Your task to perform on an android device: open app "Microsoft Outlook" Image 0: 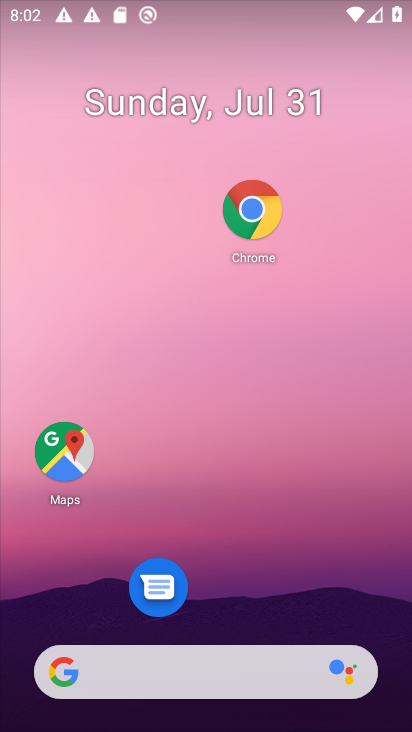
Step 0: drag from (171, 431) to (150, 247)
Your task to perform on an android device: open app "Microsoft Outlook" Image 1: 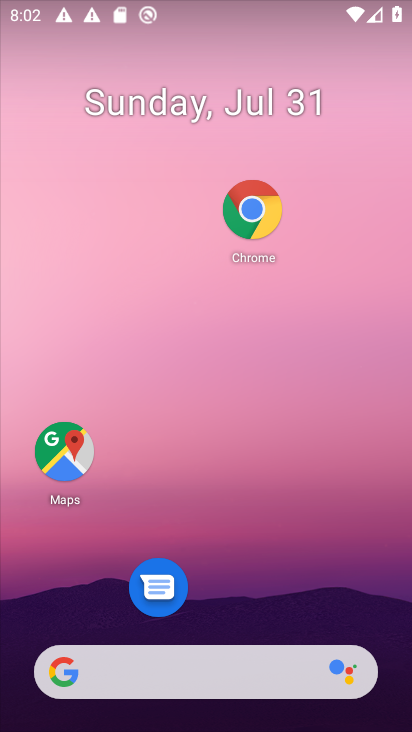
Step 1: drag from (225, 636) to (230, 177)
Your task to perform on an android device: open app "Microsoft Outlook" Image 2: 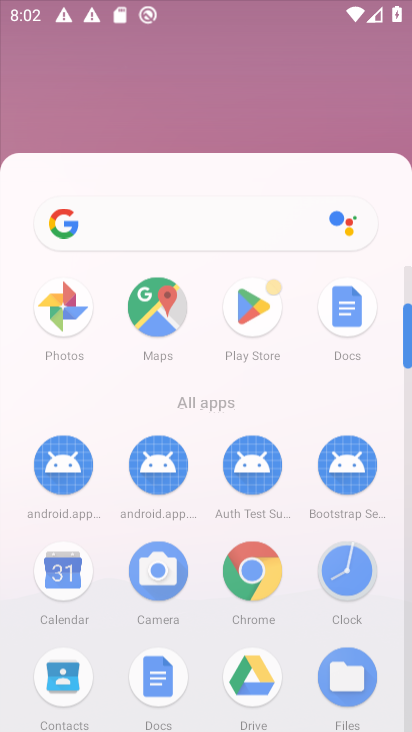
Step 2: drag from (217, 559) to (167, 108)
Your task to perform on an android device: open app "Microsoft Outlook" Image 3: 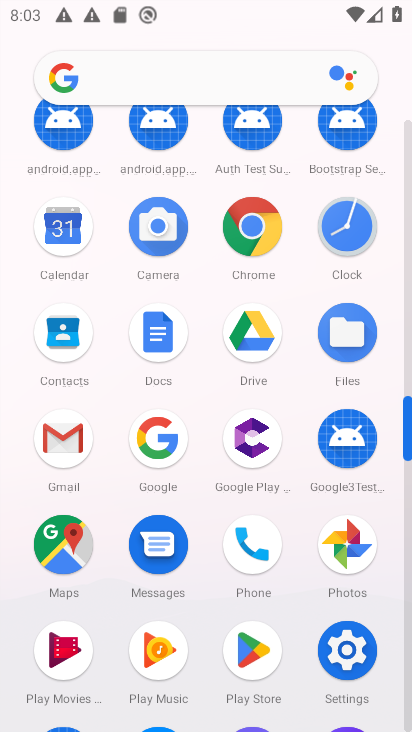
Step 3: drag from (193, 299) to (245, 717)
Your task to perform on an android device: open app "Microsoft Outlook" Image 4: 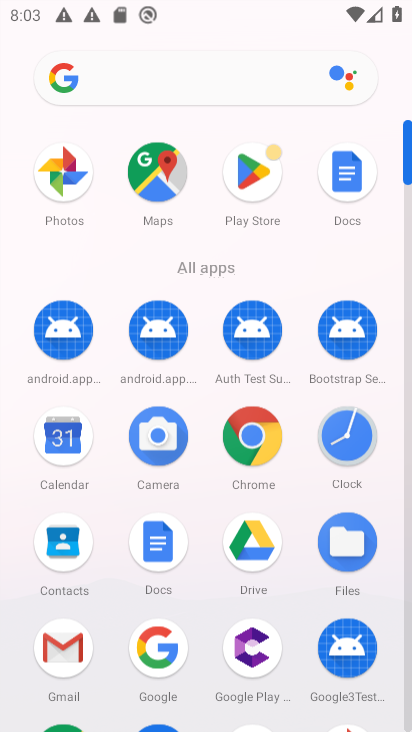
Step 4: drag from (246, 275) to (246, 713)
Your task to perform on an android device: open app "Microsoft Outlook" Image 5: 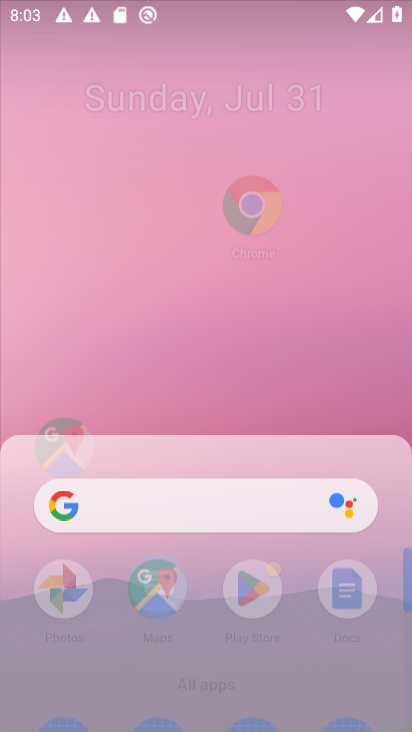
Step 5: drag from (261, 407) to (296, 697)
Your task to perform on an android device: open app "Microsoft Outlook" Image 6: 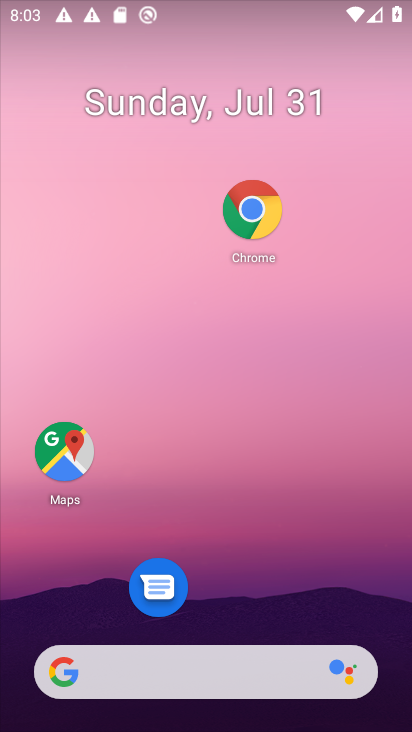
Step 6: drag from (198, 526) to (147, 5)
Your task to perform on an android device: open app "Microsoft Outlook" Image 7: 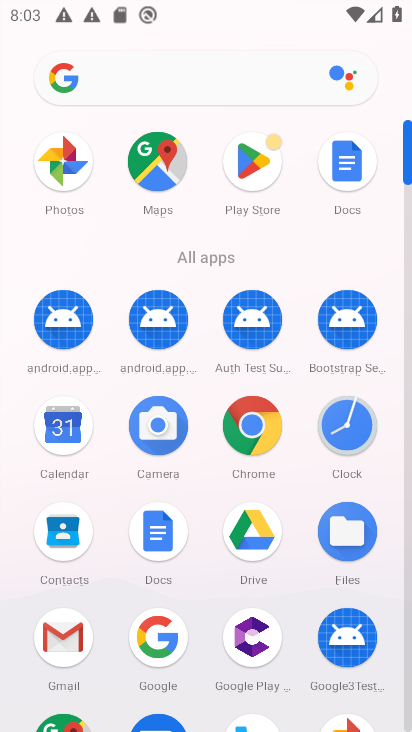
Step 7: click (255, 147)
Your task to perform on an android device: open app "Microsoft Outlook" Image 8: 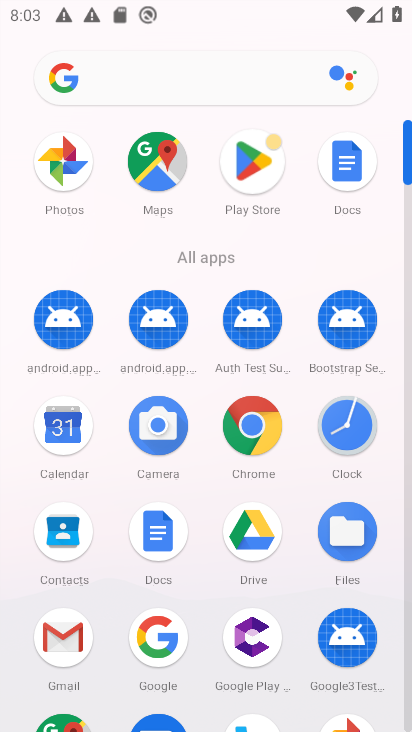
Step 8: click (261, 155)
Your task to perform on an android device: open app "Microsoft Outlook" Image 9: 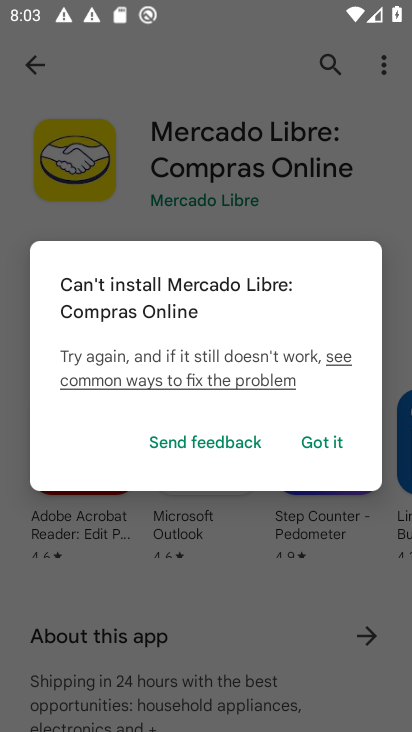
Step 9: click (323, 436)
Your task to perform on an android device: open app "Microsoft Outlook" Image 10: 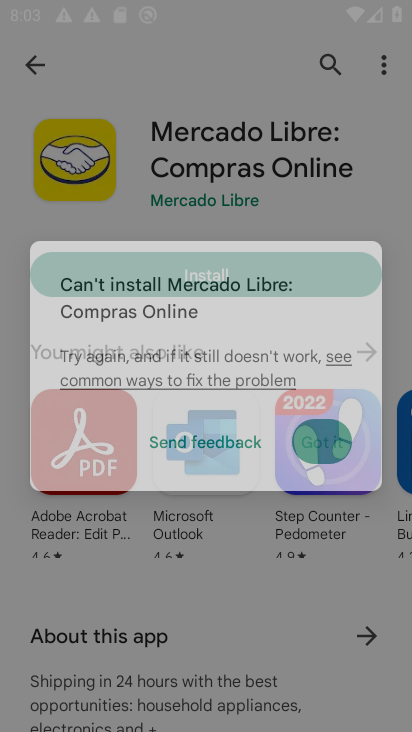
Step 10: click (322, 437)
Your task to perform on an android device: open app "Microsoft Outlook" Image 11: 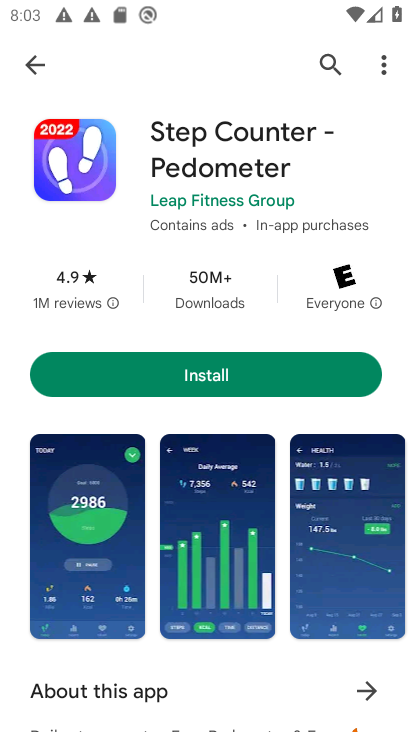
Step 11: click (33, 68)
Your task to perform on an android device: open app "Microsoft Outlook" Image 12: 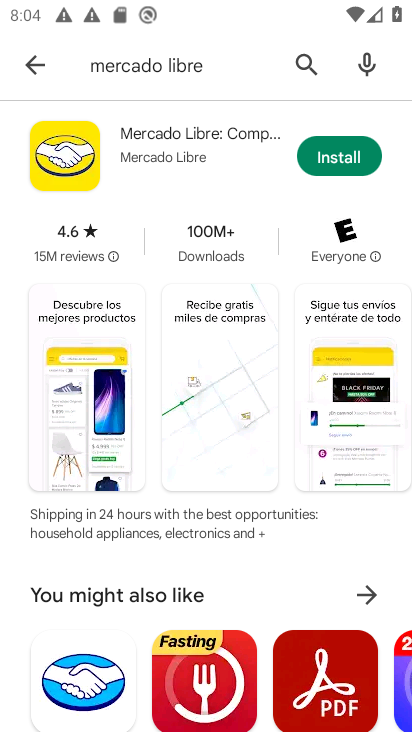
Step 12: click (42, 57)
Your task to perform on an android device: open app "Microsoft Outlook" Image 13: 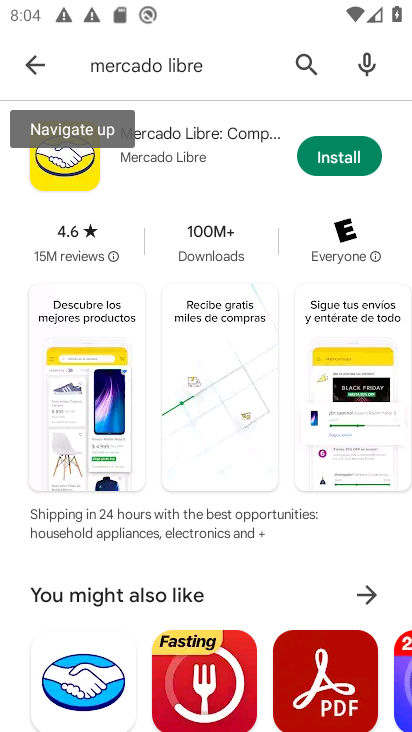
Step 13: click (36, 64)
Your task to perform on an android device: open app "Microsoft Outlook" Image 14: 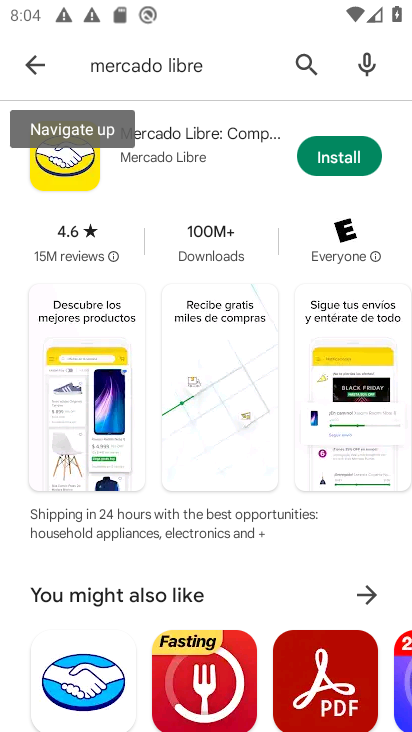
Step 14: click (35, 64)
Your task to perform on an android device: open app "Microsoft Outlook" Image 15: 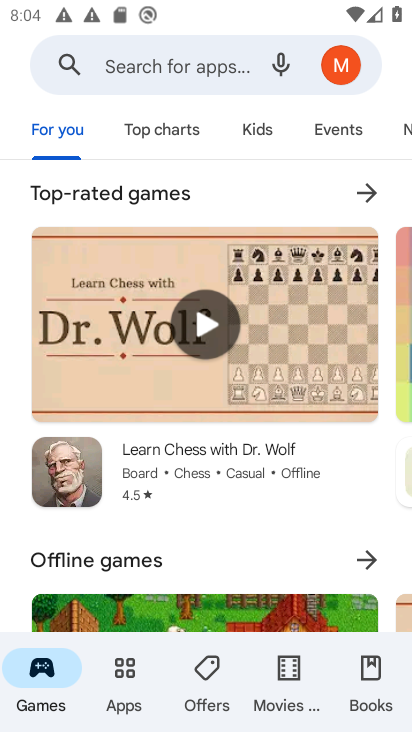
Step 15: click (114, 66)
Your task to perform on an android device: open app "Microsoft Outlook" Image 16: 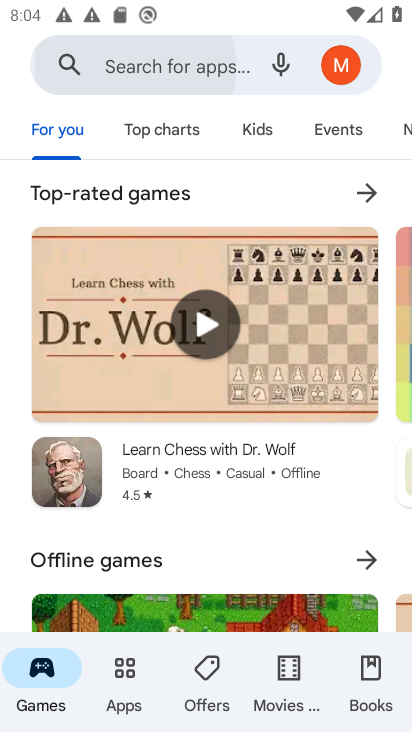
Step 16: click (111, 64)
Your task to perform on an android device: open app "Microsoft Outlook" Image 17: 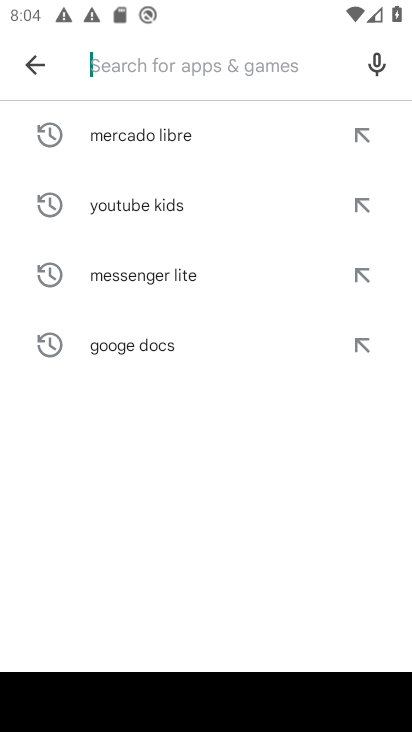
Step 17: type "microsoft outlook"
Your task to perform on an android device: open app "Microsoft Outlook" Image 18: 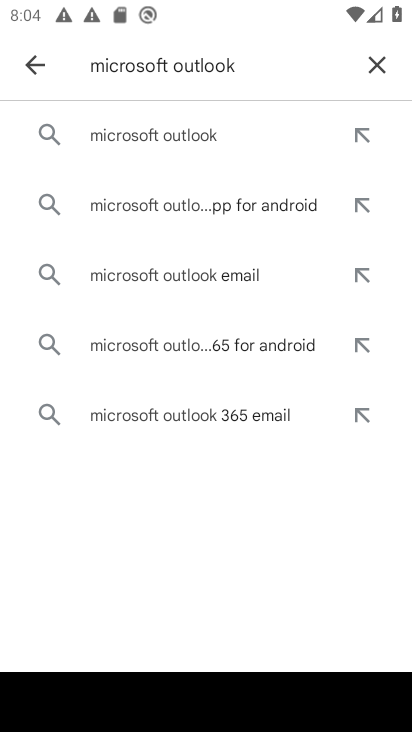
Step 18: click (172, 138)
Your task to perform on an android device: open app "Microsoft Outlook" Image 19: 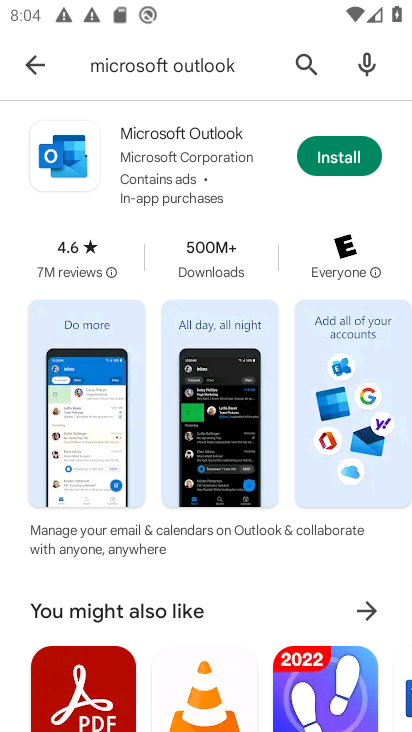
Step 19: click (324, 150)
Your task to perform on an android device: open app "Microsoft Outlook" Image 20: 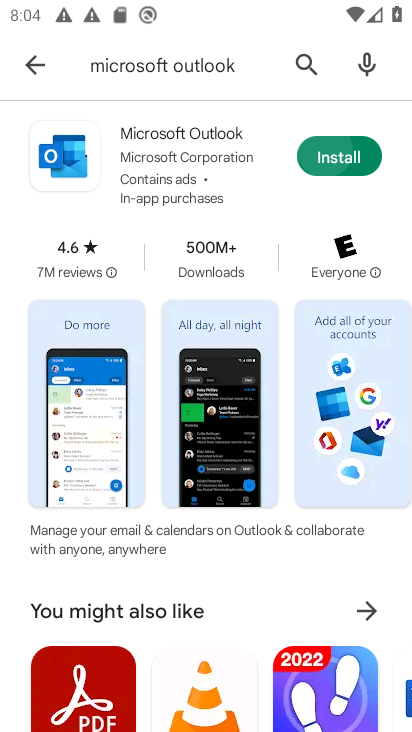
Step 20: click (325, 157)
Your task to perform on an android device: open app "Microsoft Outlook" Image 21: 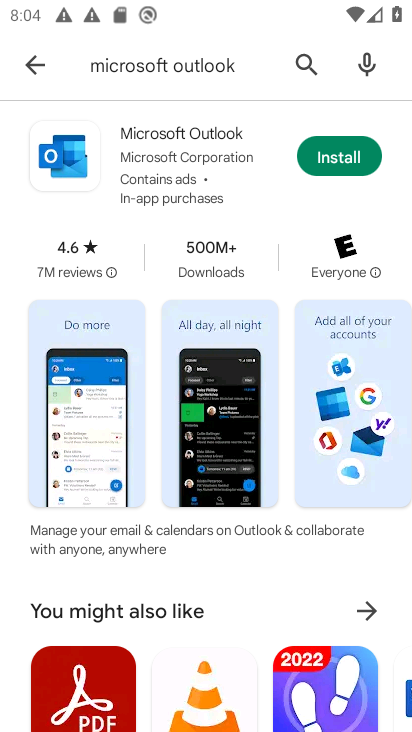
Step 21: click (340, 154)
Your task to perform on an android device: open app "Microsoft Outlook" Image 22: 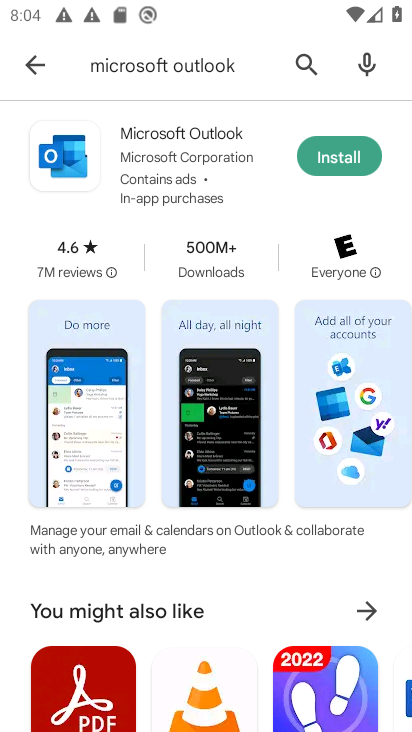
Step 22: click (340, 154)
Your task to perform on an android device: open app "Microsoft Outlook" Image 23: 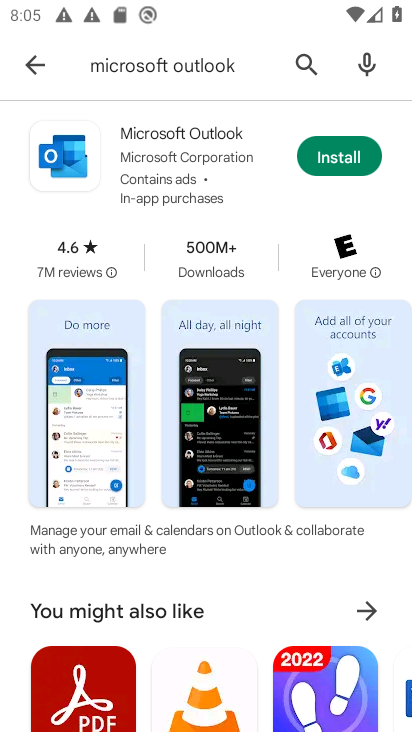
Step 23: click (358, 160)
Your task to perform on an android device: open app "Microsoft Outlook" Image 24: 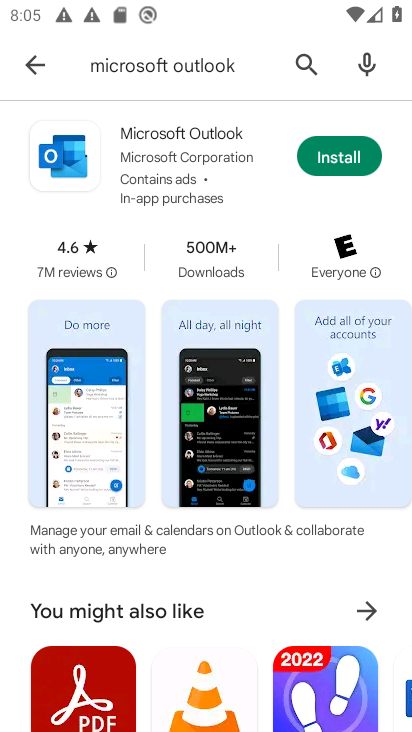
Step 24: click (360, 165)
Your task to perform on an android device: open app "Microsoft Outlook" Image 25: 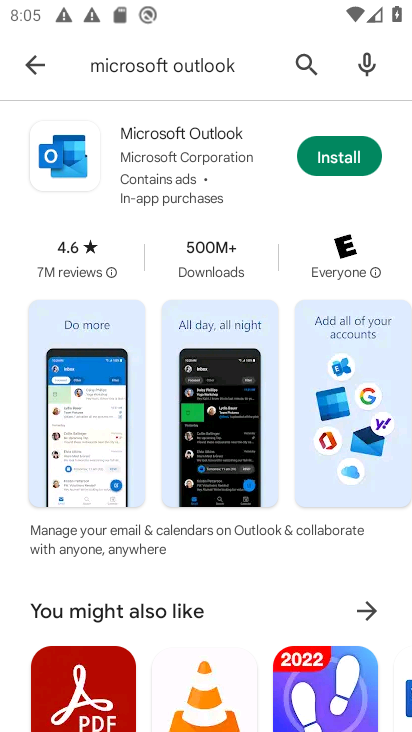
Step 25: click (331, 149)
Your task to perform on an android device: open app "Microsoft Outlook" Image 26: 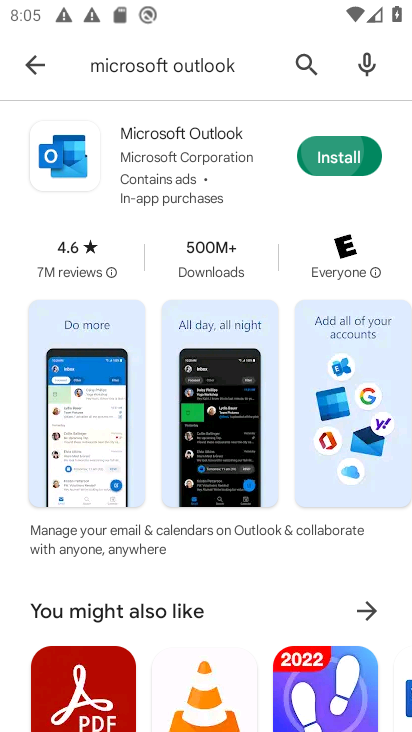
Step 26: click (332, 150)
Your task to perform on an android device: open app "Microsoft Outlook" Image 27: 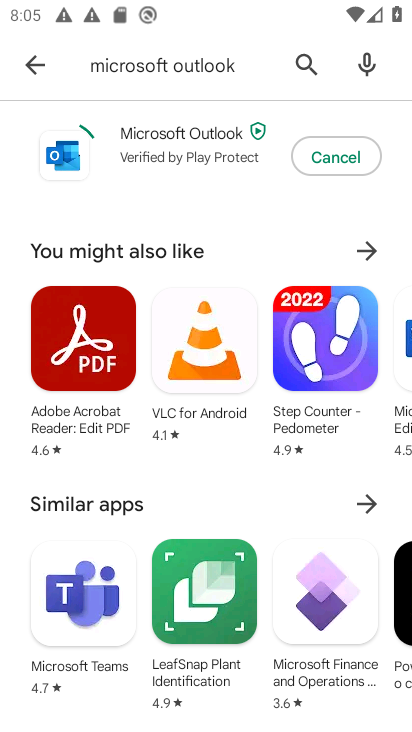
Step 27: click (335, 148)
Your task to perform on an android device: open app "Microsoft Outlook" Image 28: 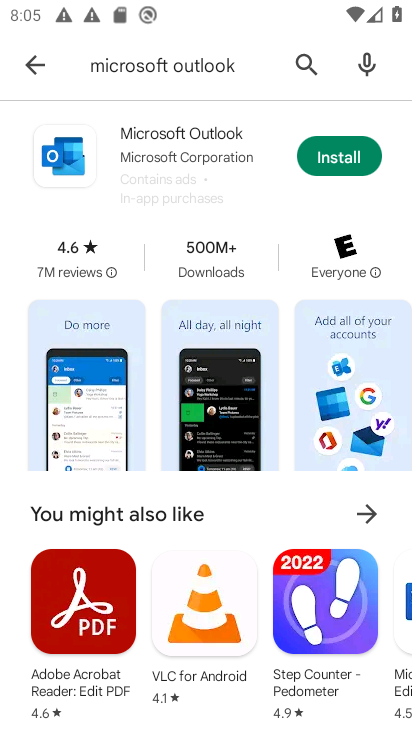
Step 28: click (336, 145)
Your task to perform on an android device: open app "Microsoft Outlook" Image 29: 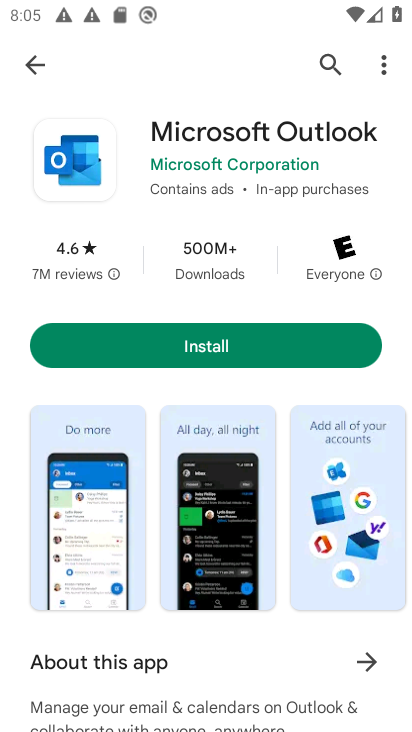
Step 29: click (209, 347)
Your task to perform on an android device: open app "Microsoft Outlook" Image 30: 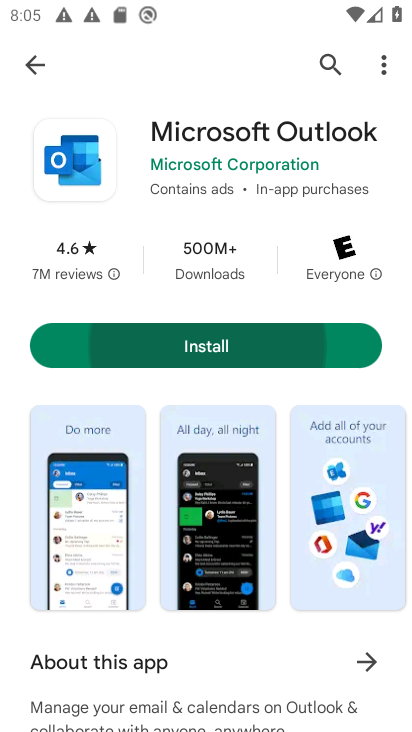
Step 30: click (209, 347)
Your task to perform on an android device: open app "Microsoft Outlook" Image 31: 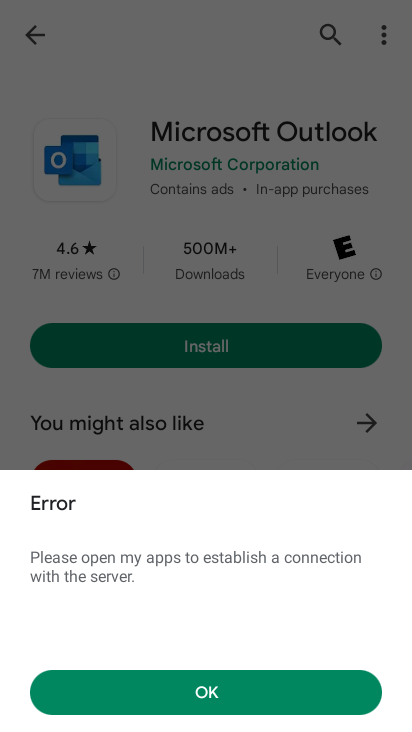
Step 31: click (221, 694)
Your task to perform on an android device: open app "Microsoft Outlook" Image 32: 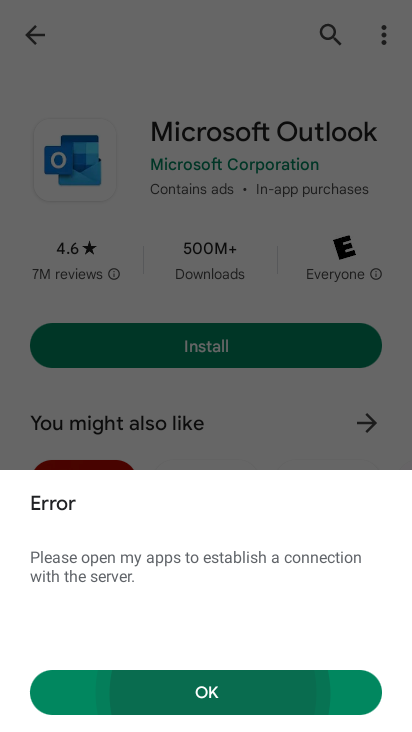
Step 32: click (221, 694)
Your task to perform on an android device: open app "Microsoft Outlook" Image 33: 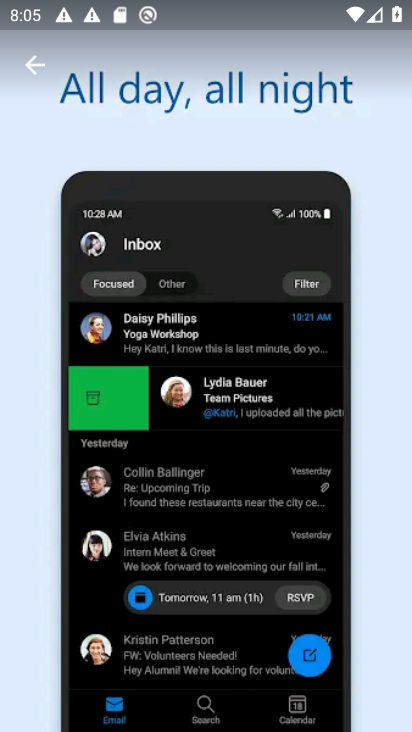
Step 33: click (141, 141)
Your task to perform on an android device: open app "Microsoft Outlook" Image 34: 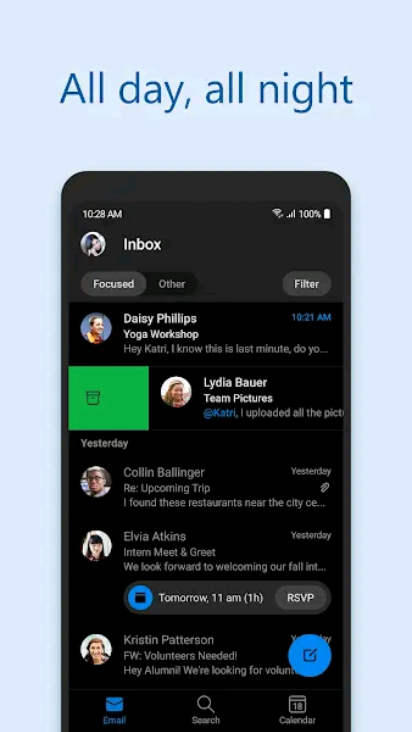
Step 34: click (71, 129)
Your task to perform on an android device: open app "Microsoft Outlook" Image 35: 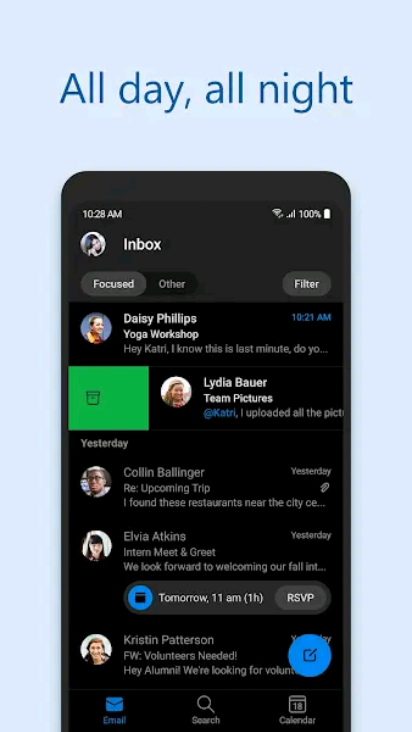
Step 35: click (78, 127)
Your task to perform on an android device: open app "Microsoft Outlook" Image 36: 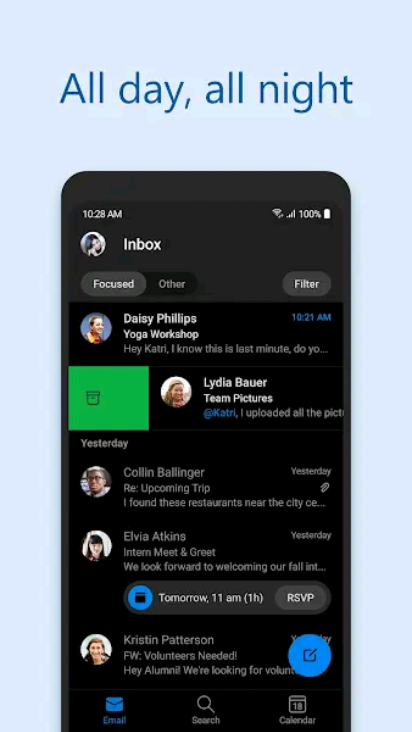
Step 36: click (38, 58)
Your task to perform on an android device: open app "Microsoft Outlook" Image 37: 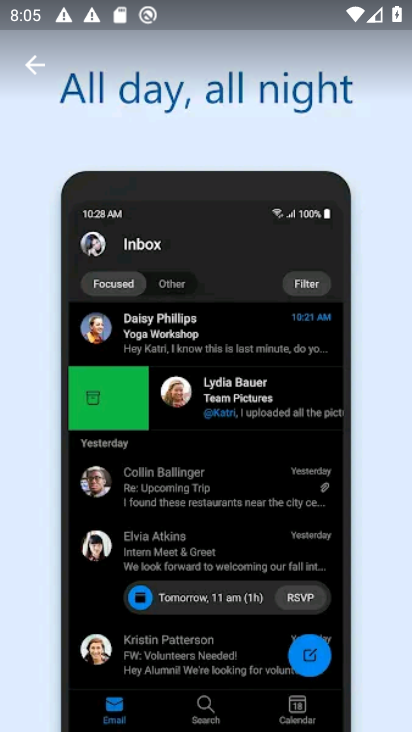
Step 37: click (58, 101)
Your task to perform on an android device: open app "Microsoft Outlook" Image 38: 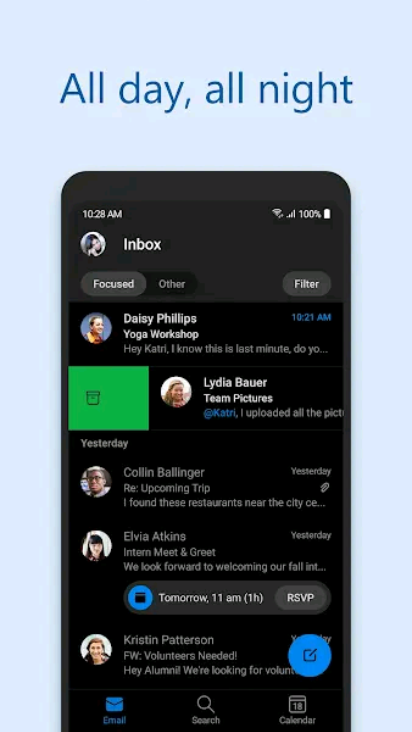
Step 38: click (35, 63)
Your task to perform on an android device: open app "Microsoft Outlook" Image 39: 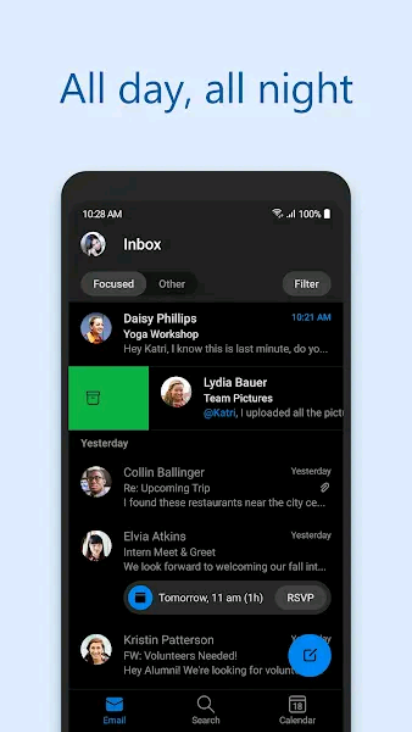
Step 39: click (35, 62)
Your task to perform on an android device: open app "Microsoft Outlook" Image 40: 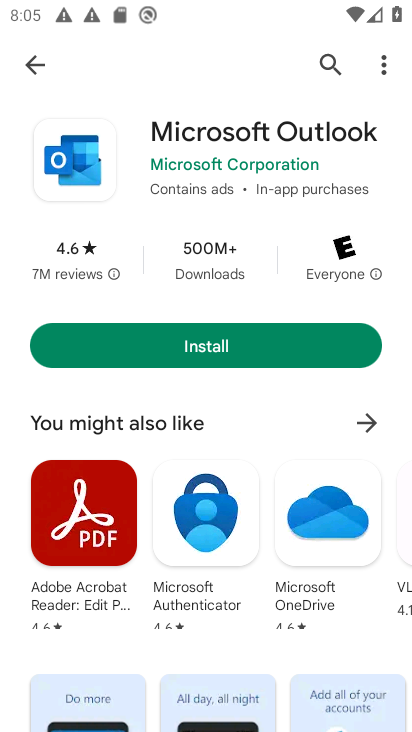
Step 40: click (190, 349)
Your task to perform on an android device: open app "Microsoft Outlook" Image 41: 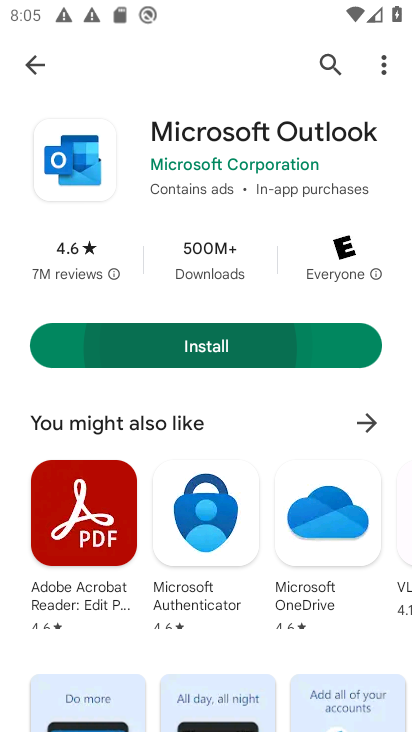
Step 41: click (191, 350)
Your task to perform on an android device: open app "Microsoft Outlook" Image 42: 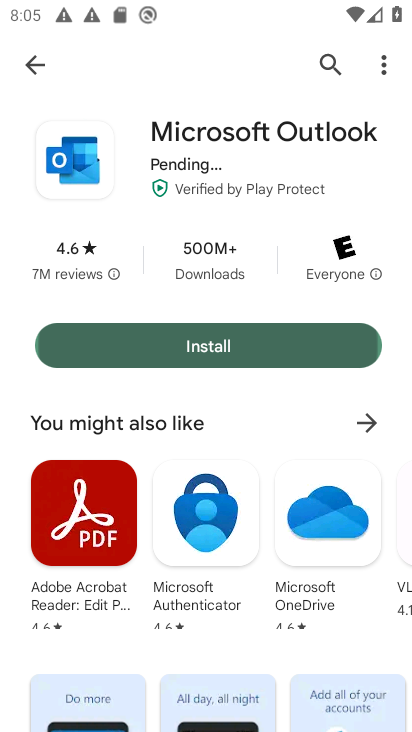
Step 42: click (192, 351)
Your task to perform on an android device: open app "Microsoft Outlook" Image 43: 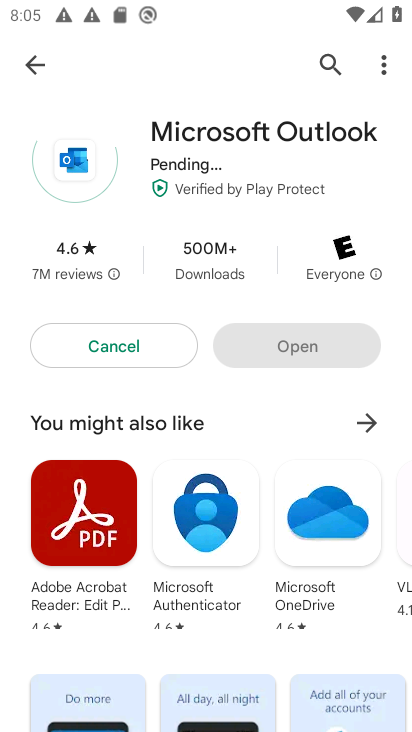
Step 43: click (193, 351)
Your task to perform on an android device: open app "Microsoft Outlook" Image 44: 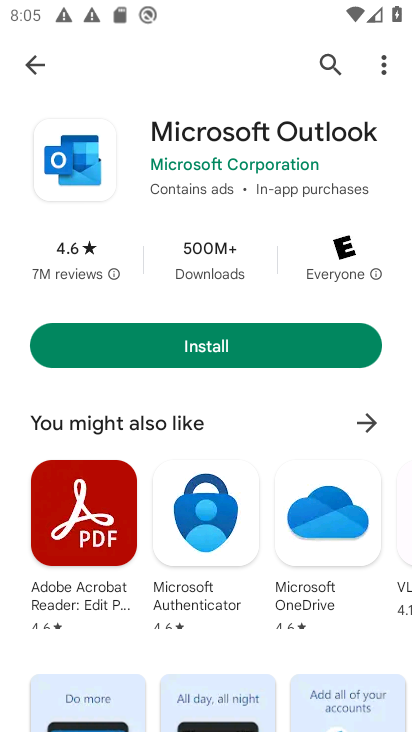
Step 44: click (270, 346)
Your task to perform on an android device: open app "Microsoft Outlook" Image 45: 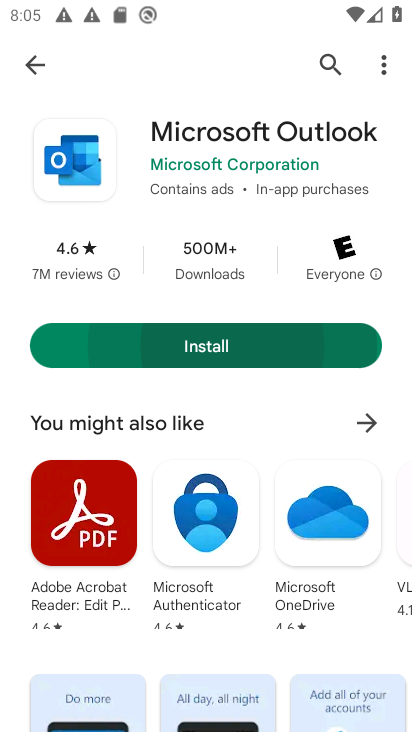
Step 45: click (270, 346)
Your task to perform on an android device: open app "Microsoft Outlook" Image 46: 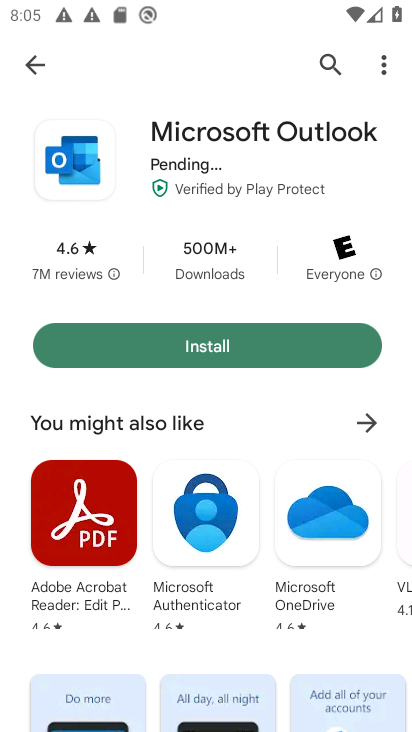
Step 46: click (266, 342)
Your task to perform on an android device: open app "Microsoft Outlook" Image 47: 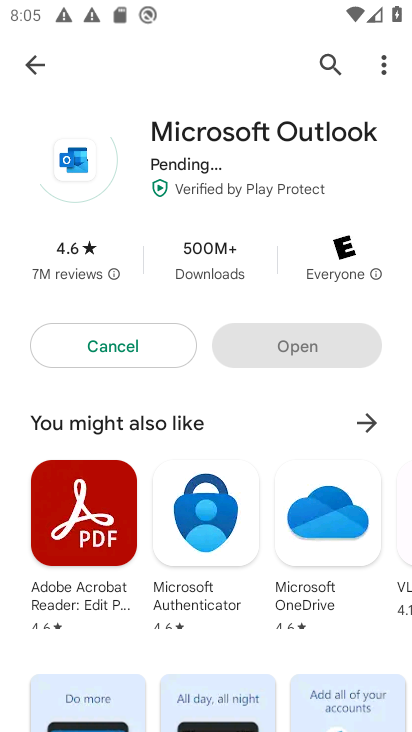
Step 47: click (261, 335)
Your task to perform on an android device: open app "Microsoft Outlook" Image 48: 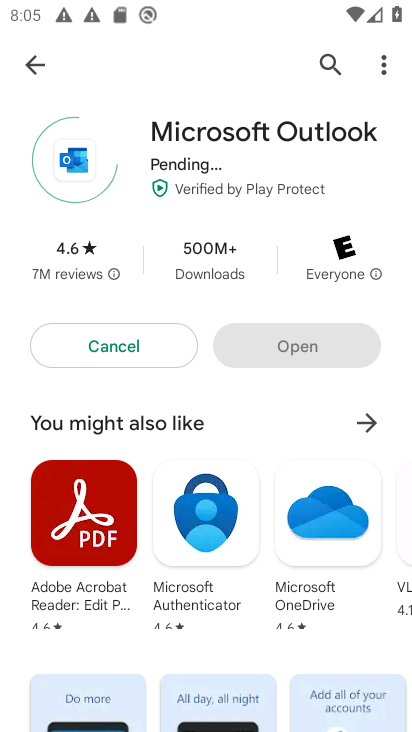
Step 48: click (261, 336)
Your task to perform on an android device: open app "Microsoft Outlook" Image 49: 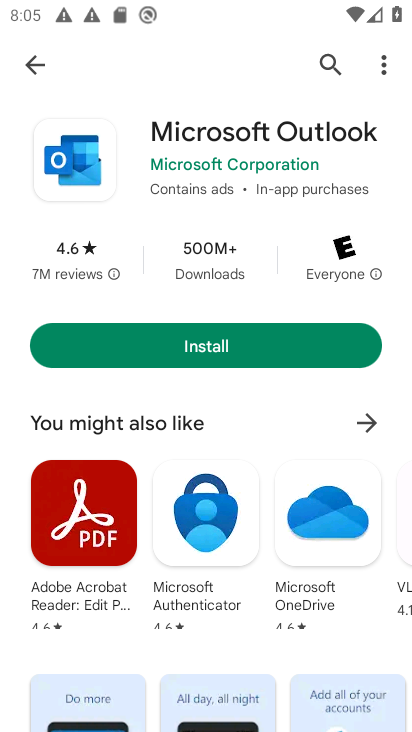
Step 49: click (228, 347)
Your task to perform on an android device: open app "Microsoft Outlook" Image 50: 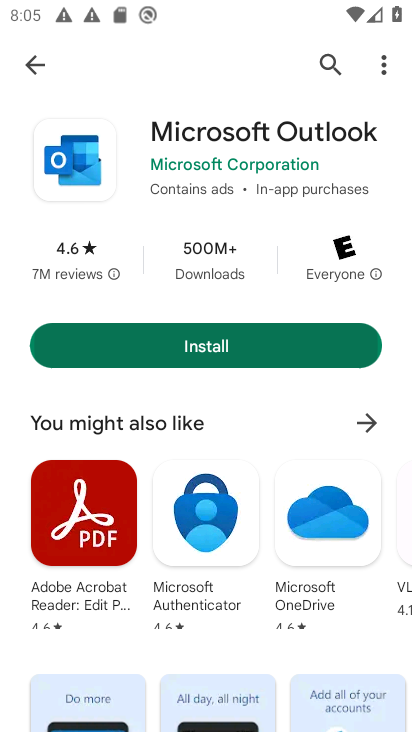
Step 50: click (226, 351)
Your task to perform on an android device: open app "Microsoft Outlook" Image 51: 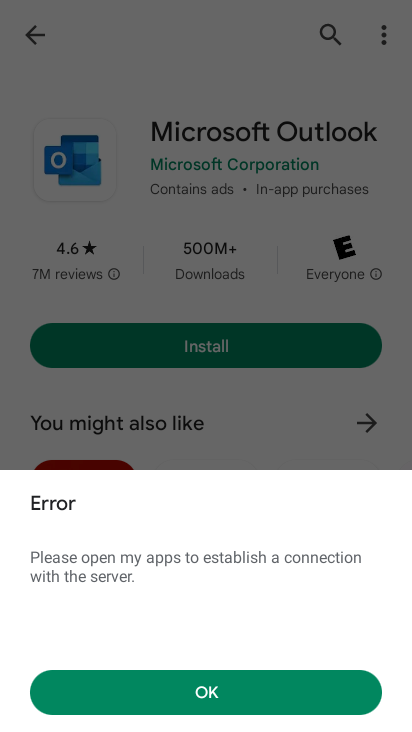
Step 51: click (196, 672)
Your task to perform on an android device: open app "Microsoft Outlook" Image 52: 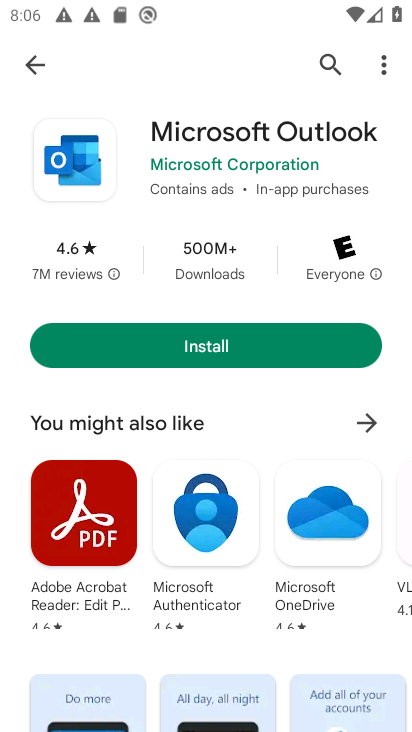
Step 52: task complete